Your task to perform on an android device: Open maps Image 0: 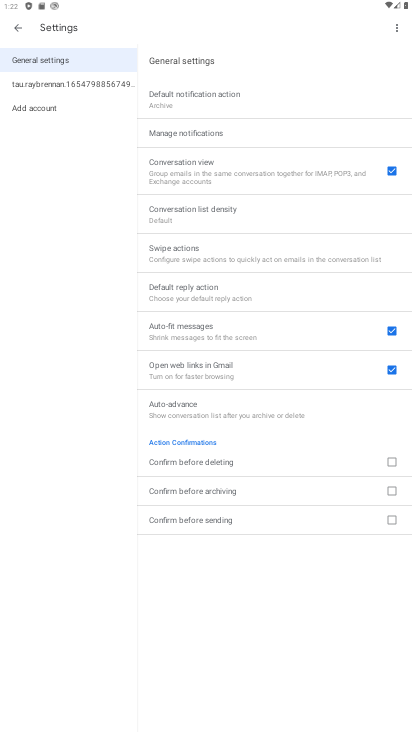
Step 0: press home button
Your task to perform on an android device: Open maps Image 1: 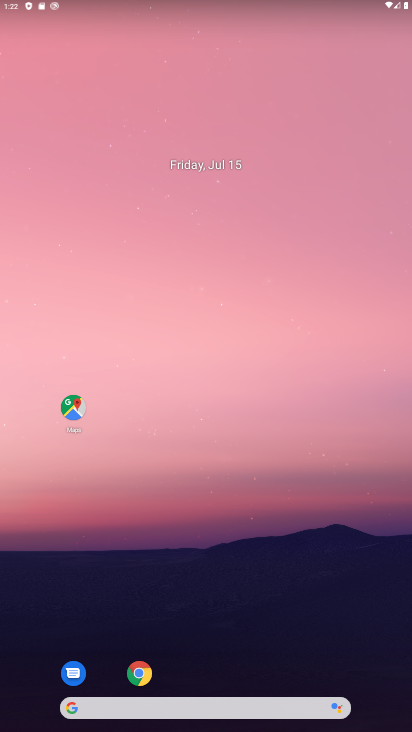
Step 1: drag from (286, 631) to (326, 4)
Your task to perform on an android device: Open maps Image 2: 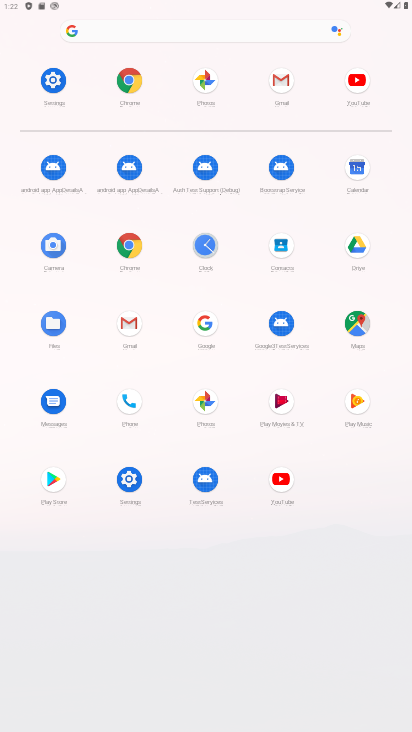
Step 2: click (359, 335)
Your task to perform on an android device: Open maps Image 3: 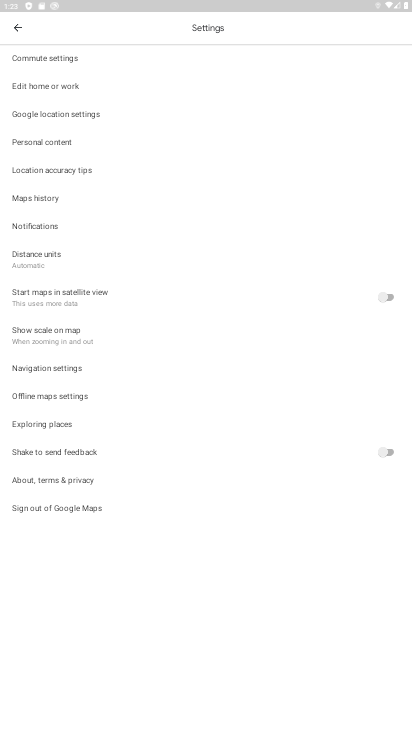
Step 3: task complete